Your task to perform on an android device: Open the calendar and show me this week's events Image 0: 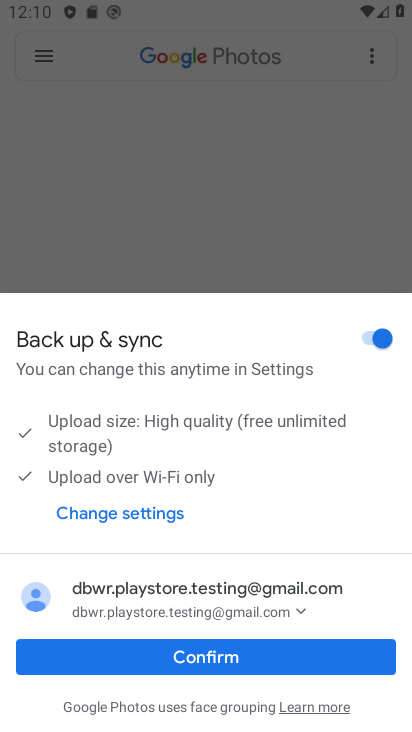
Step 0: press back button
Your task to perform on an android device: Open the calendar and show me this week's events Image 1: 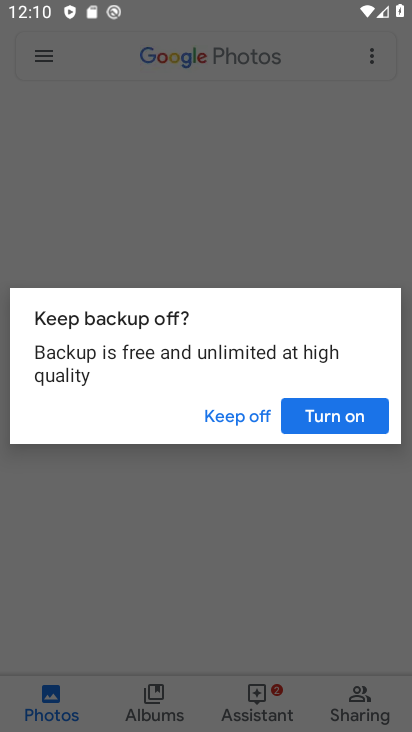
Step 1: press home button
Your task to perform on an android device: Open the calendar and show me this week's events Image 2: 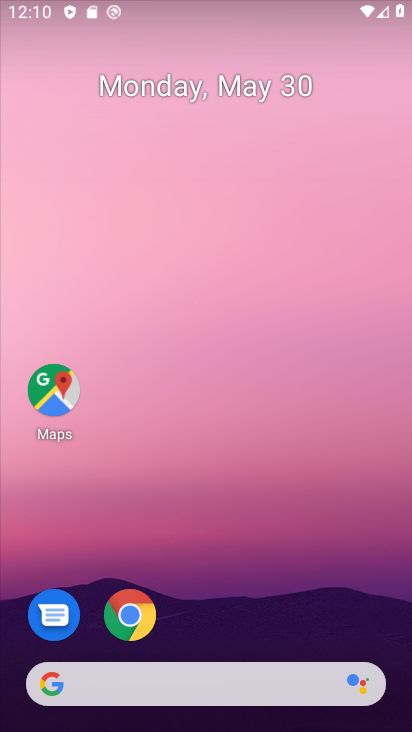
Step 2: drag from (169, 560) to (305, 36)
Your task to perform on an android device: Open the calendar and show me this week's events Image 3: 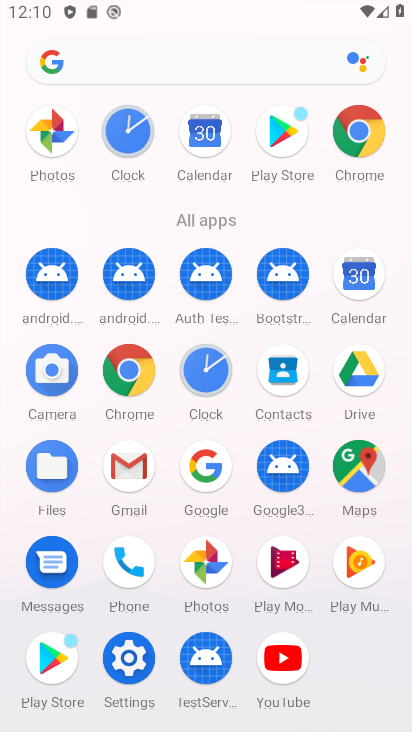
Step 3: click (345, 287)
Your task to perform on an android device: Open the calendar and show me this week's events Image 4: 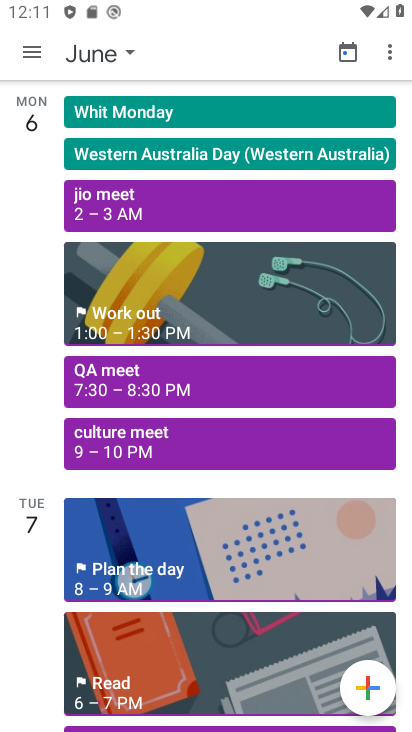
Step 4: click (142, 454)
Your task to perform on an android device: Open the calendar and show me this week's events Image 5: 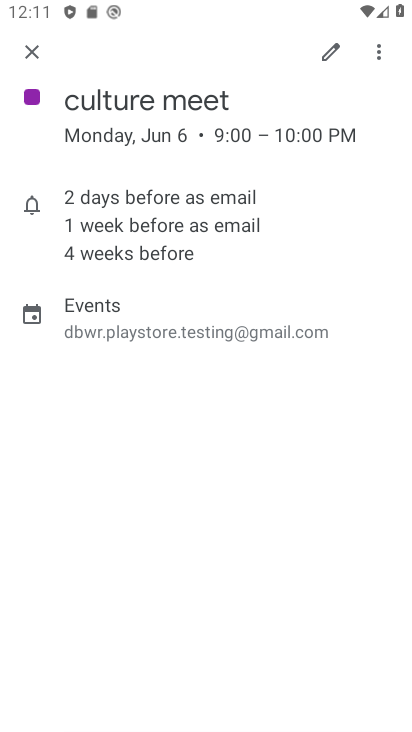
Step 5: click (20, 48)
Your task to perform on an android device: Open the calendar and show me this week's events Image 6: 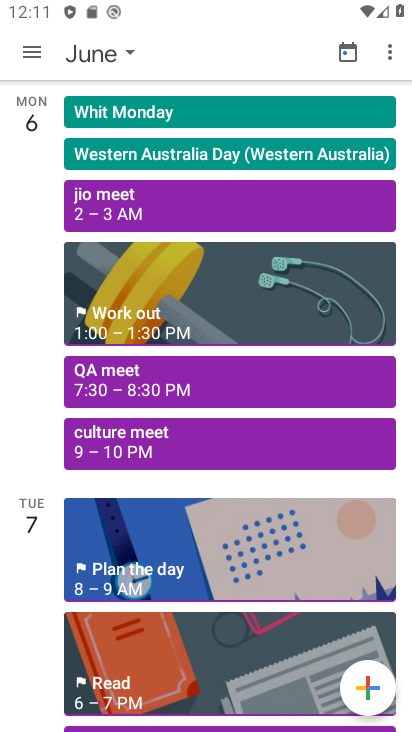
Step 6: click (90, 53)
Your task to perform on an android device: Open the calendar and show me this week's events Image 7: 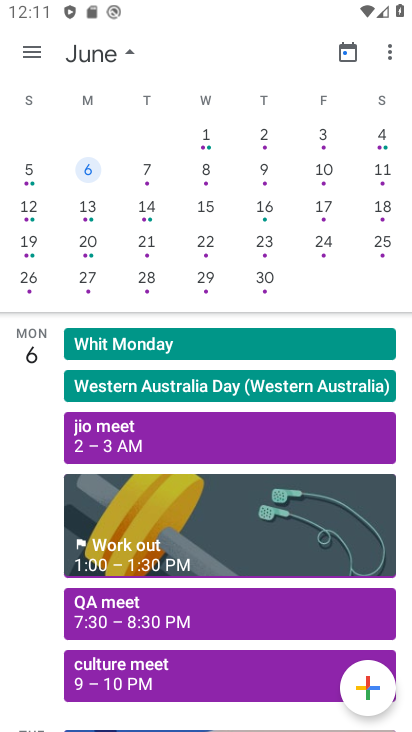
Step 7: drag from (28, 236) to (397, 189)
Your task to perform on an android device: Open the calendar and show me this week's events Image 8: 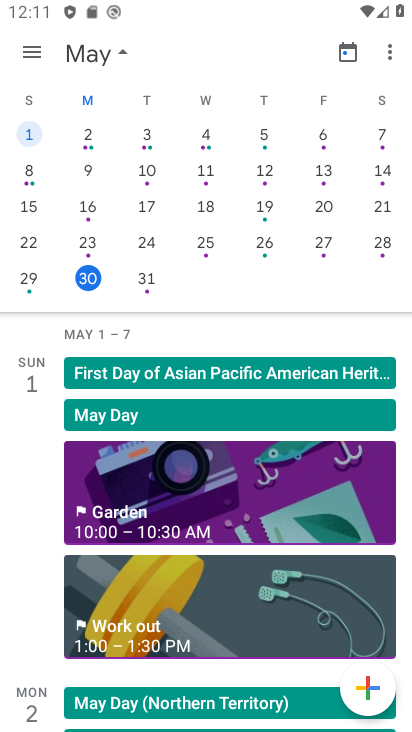
Step 8: drag from (153, 362) to (152, 723)
Your task to perform on an android device: Open the calendar and show me this week's events Image 9: 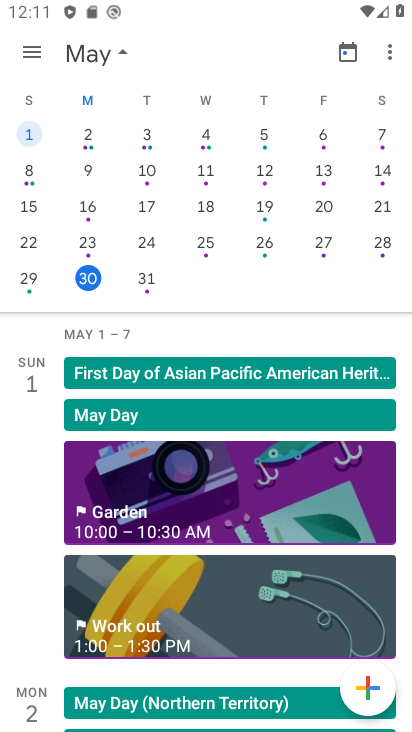
Step 9: click (81, 279)
Your task to perform on an android device: Open the calendar and show me this week's events Image 10: 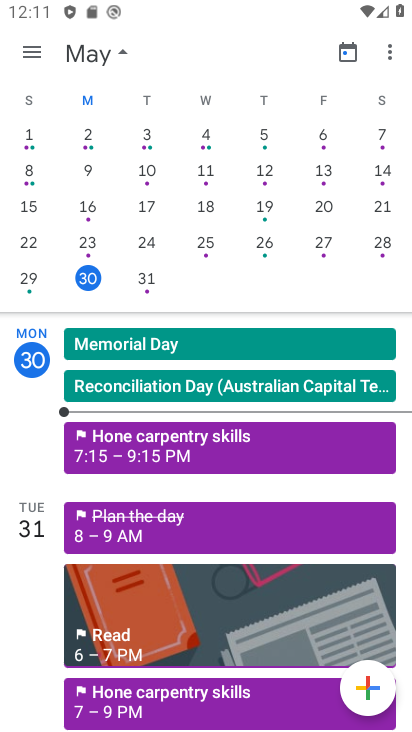
Step 10: click (142, 341)
Your task to perform on an android device: Open the calendar and show me this week's events Image 11: 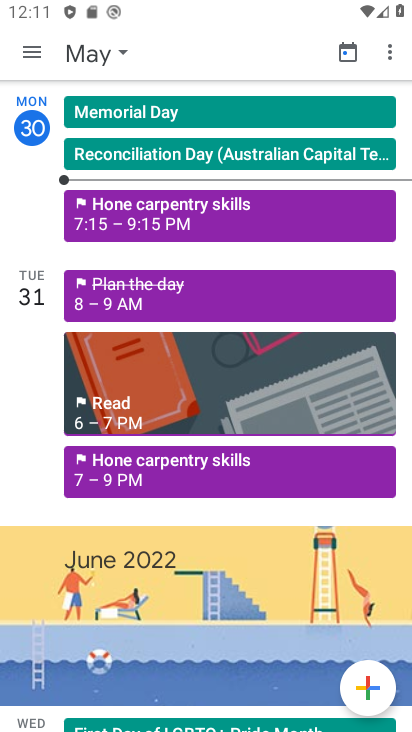
Step 11: task complete